Your task to perform on an android device: Open the calendar and show me this week's events? Image 0: 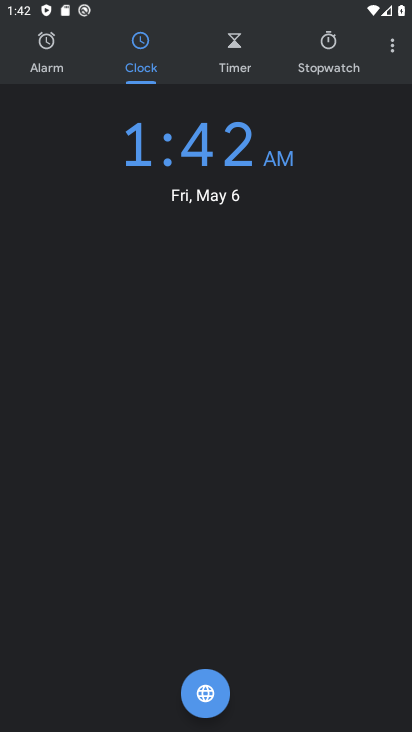
Step 0: press home button
Your task to perform on an android device: Open the calendar and show me this week's events? Image 1: 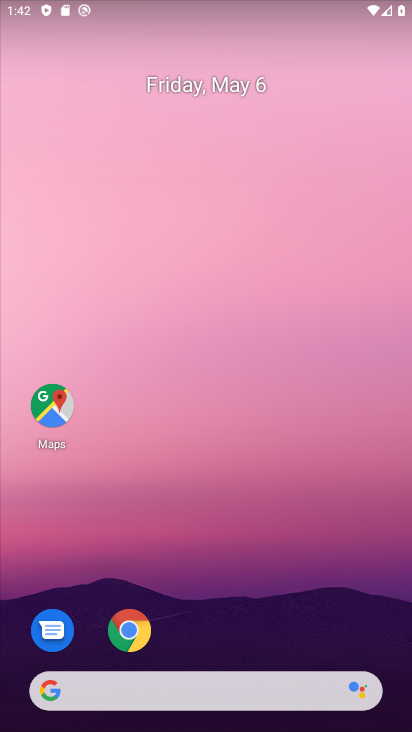
Step 1: drag from (201, 676) to (182, 8)
Your task to perform on an android device: Open the calendar and show me this week's events? Image 2: 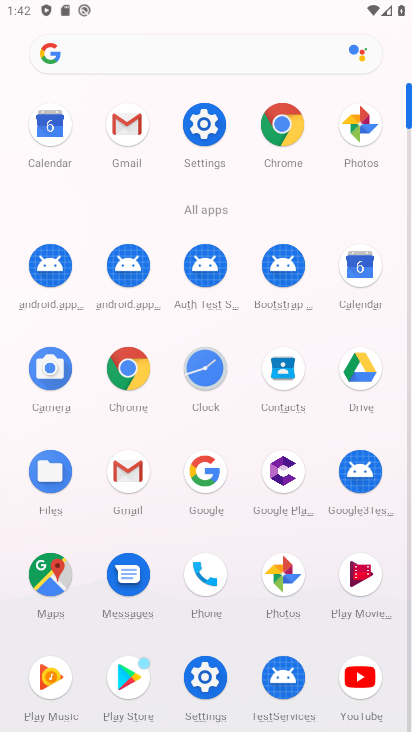
Step 2: click (358, 275)
Your task to perform on an android device: Open the calendar and show me this week's events? Image 3: 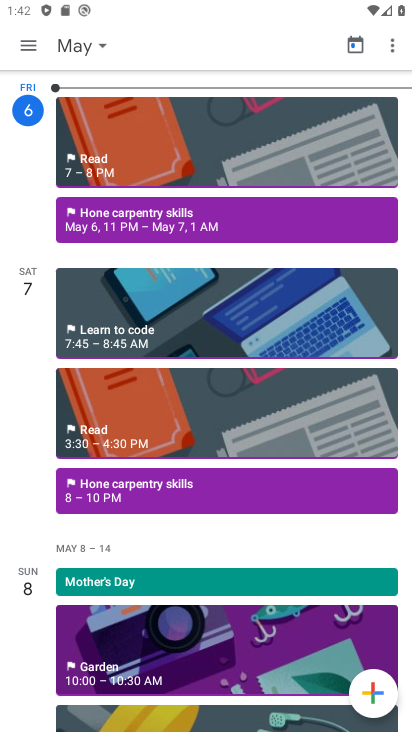
Step 3: click (28, 50)
Your task to perform on an android device: Open the calendar and show me this week's events? Image 4: 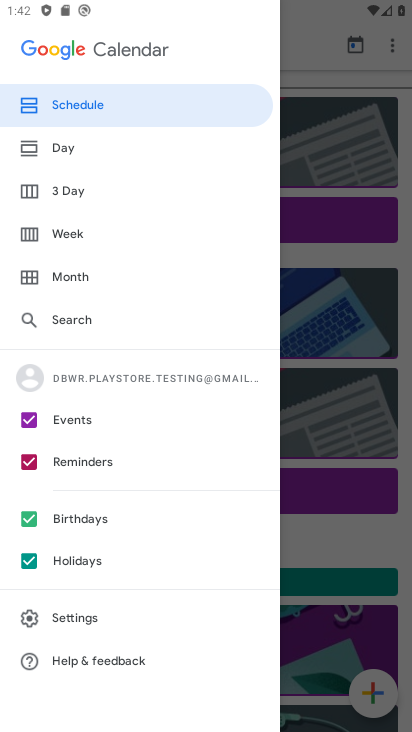
Step 4: click (64, 231)
Your task to perform on an android device: Open the calendar and show me this week's events? Image 5: 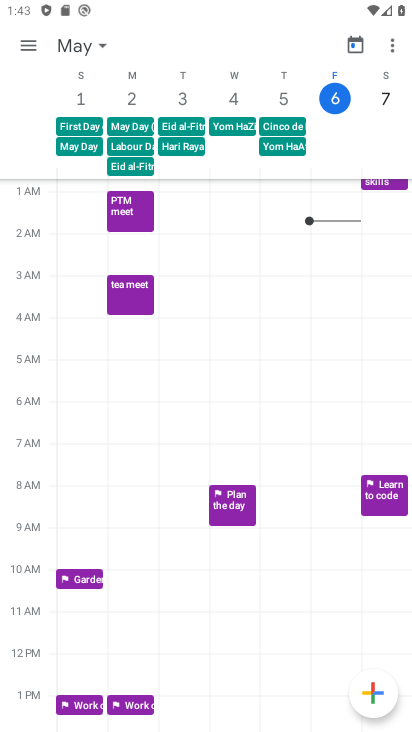
Step 5: task complete